Your task to perform on an android device: add a contact Image 0: 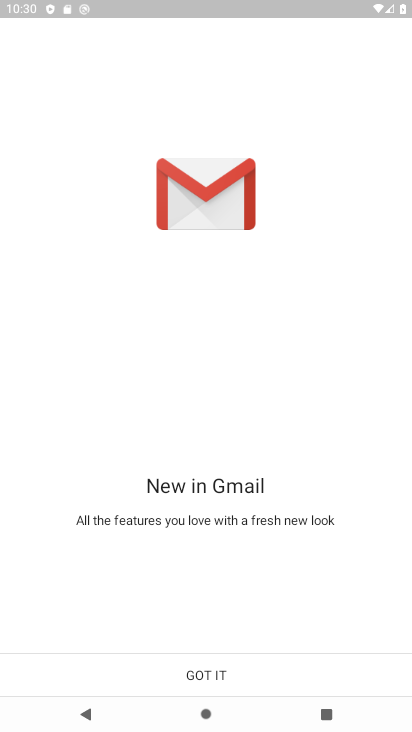
Step 0: press home button
Your task to perform on an android device: add a contact Image 1: 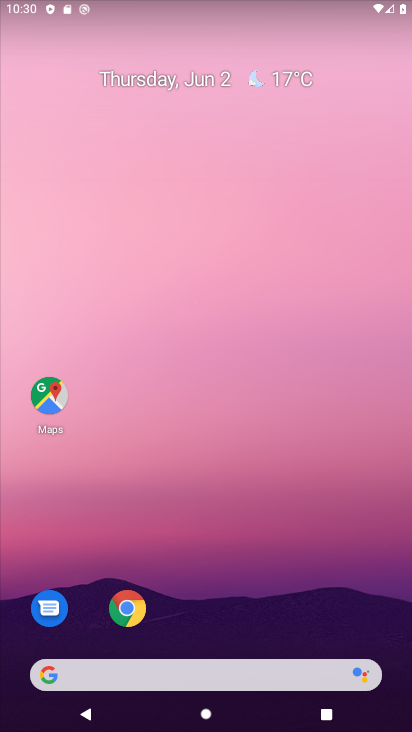
Step 1: drag from (228, 571) to (201, 109)
Your task to perform on an android device: add a contact Image 2: 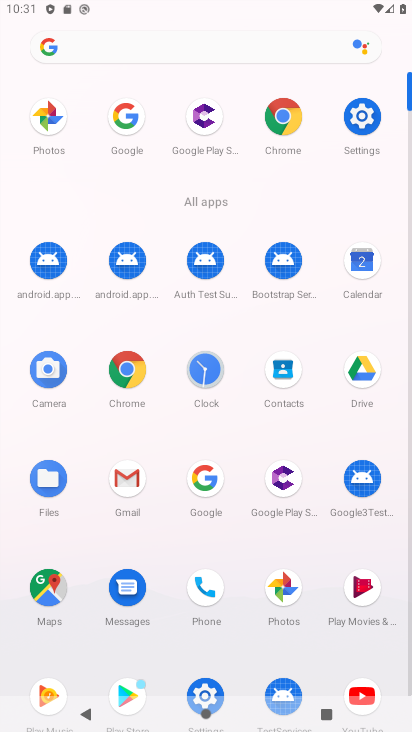
Step 2: click (289, 373)
Your task to perform on an android device: add a contact Image 3: 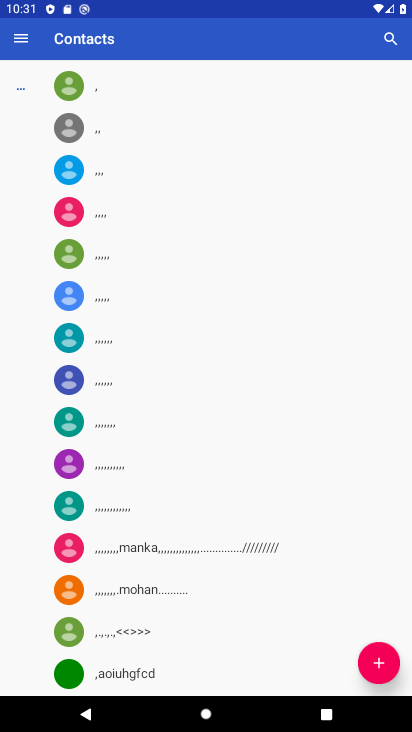
Step 3: click (385, 663)
Your task to perform on an android device: add a contact Image 4: 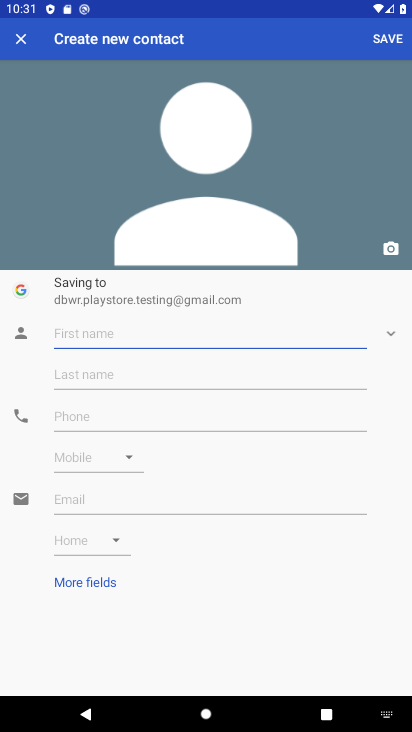
Step 4: type "hgjh"
Your task to perform on an android device: add a contact Image 5: 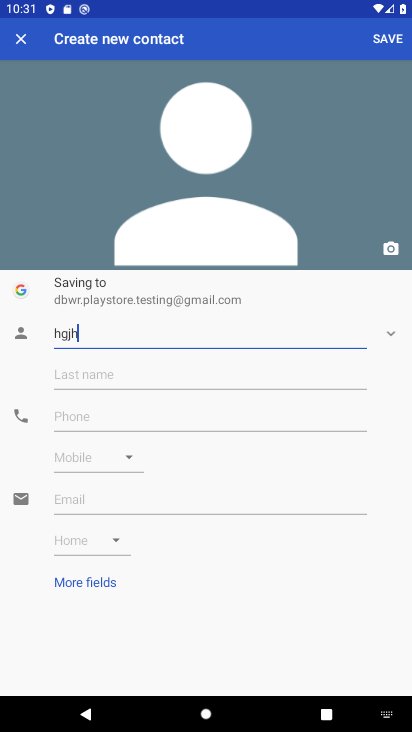
Step 5: click (116, 374)
Your task to perform on an android device: add a contact Image 6: 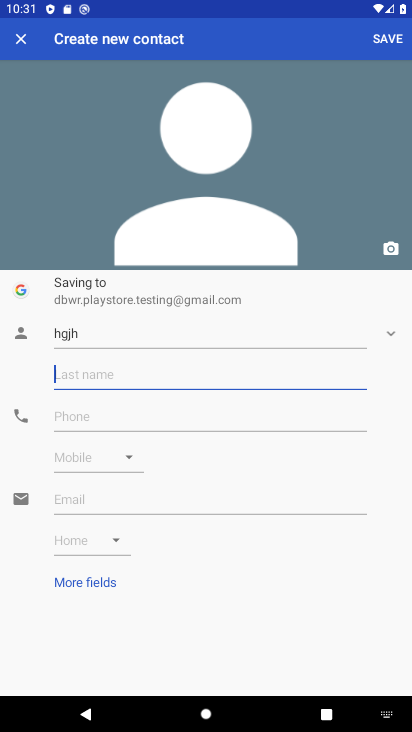
Step 6: type "jhgjugjh"
Your task to perform on an android device: add a contact Image 7: 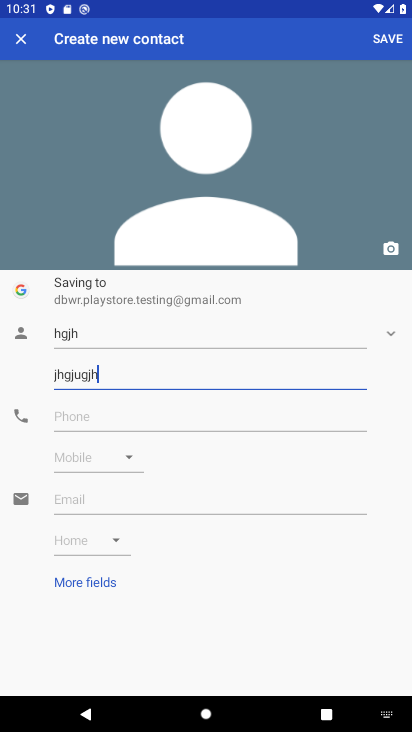
Step 7: click (320, 417)
Your task to perform on an android device: add a contact Image 8: 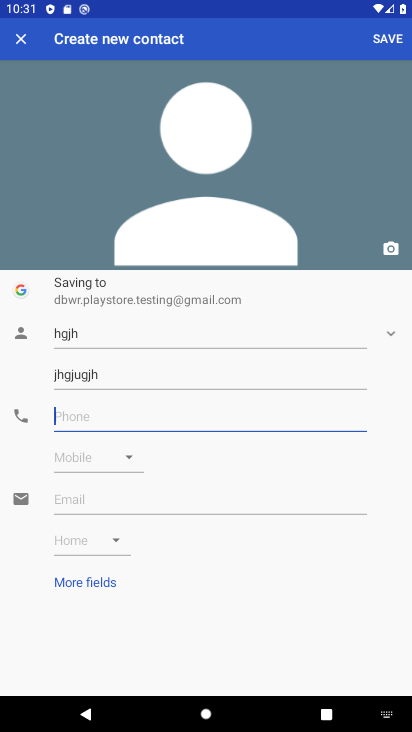
Step 8: type "675765765"
Your task to perform on an android device: add a contact Image 9: 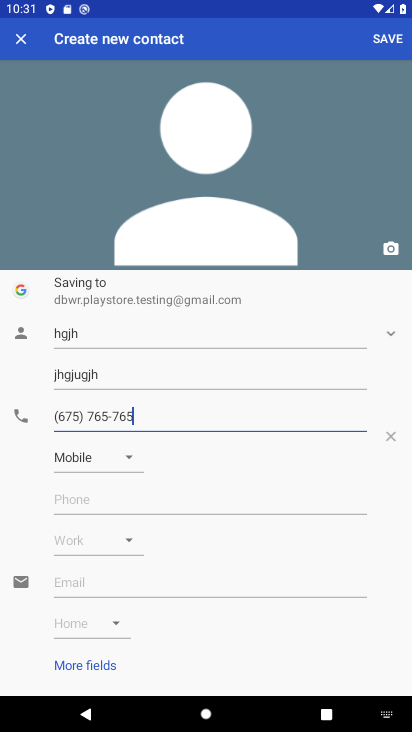
Step 9: click (393, 35)
Your task to perform on an android device: add a contact Image 10: 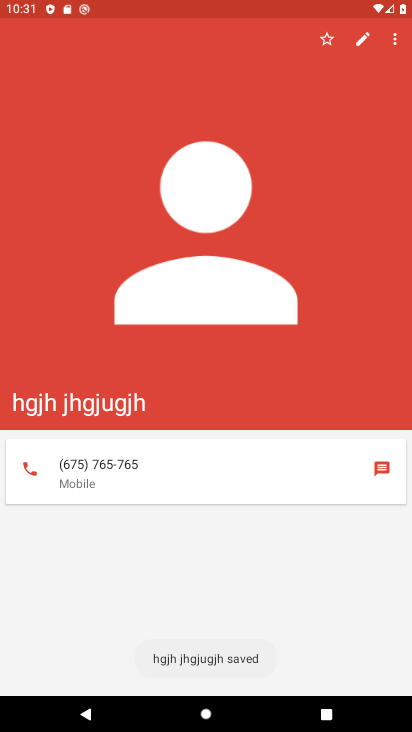
Step 10: task complete